Your task to perform on an android device: clear all cookies in the chrome app Image 0: 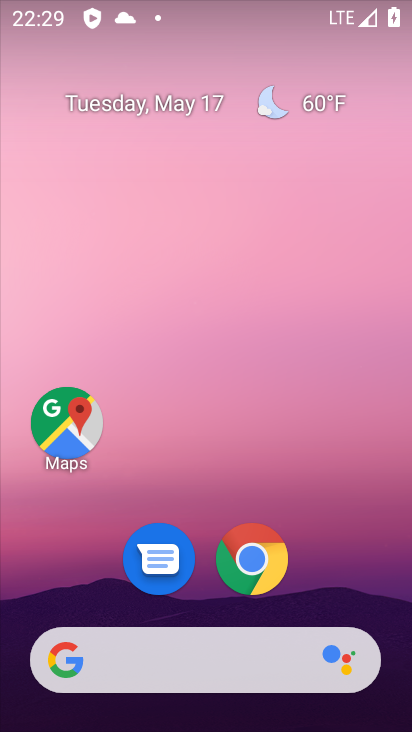
Step 0: click (248, 561)
Your task to perform on an android device: clear all cookies in the chrome app Image 1: 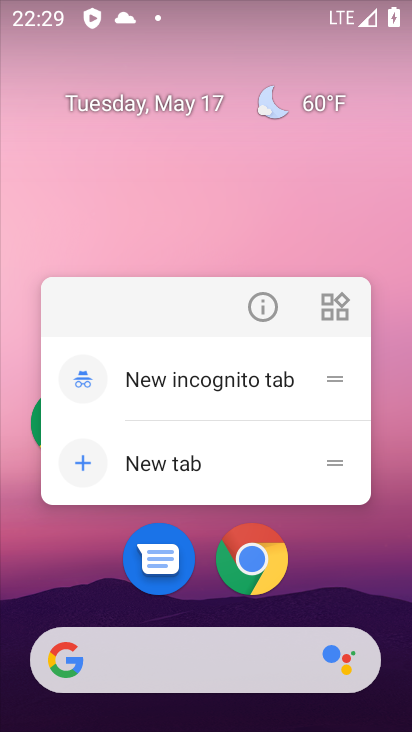
Step 1: click (252, 561)
Your task to perform on an android device: clear all cookies in the chrome app Image 2: 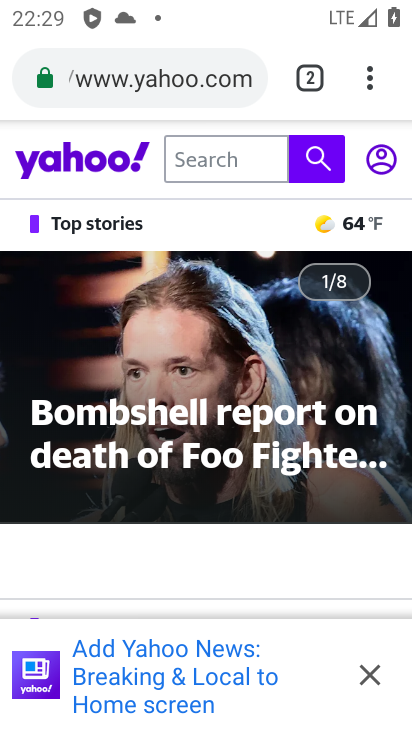
Step 2: drag from (368, 80) to (89, 126)
Your task to perform on an android device: clear all cookies in the chrome app Image 3: 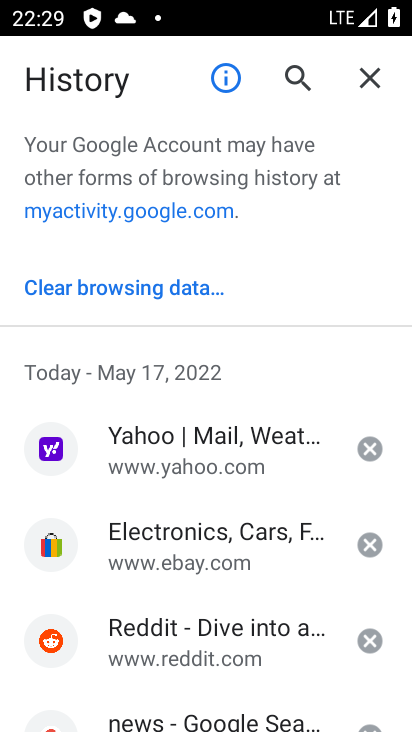
Step 3: click (175, 286)
Your task to perform on an android device: clear all cookies in the chrome app Image 4: 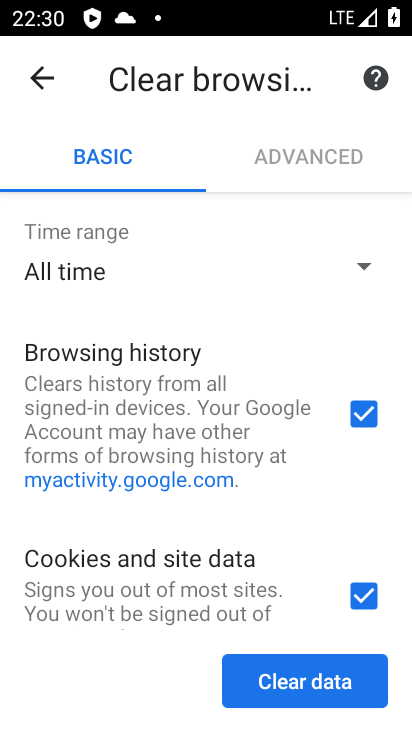
Step 4: drag from (202, 583) to (226, 160)
Your task to perform on an android device: clear all cookies in the chrome app Image 5: 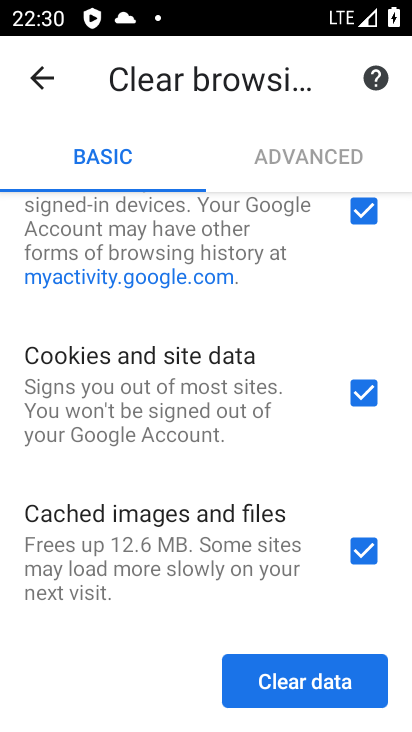
Step 5: click (315, 687)
Your task to perform on an android device: clear all cookies in the chrome app Image 6: 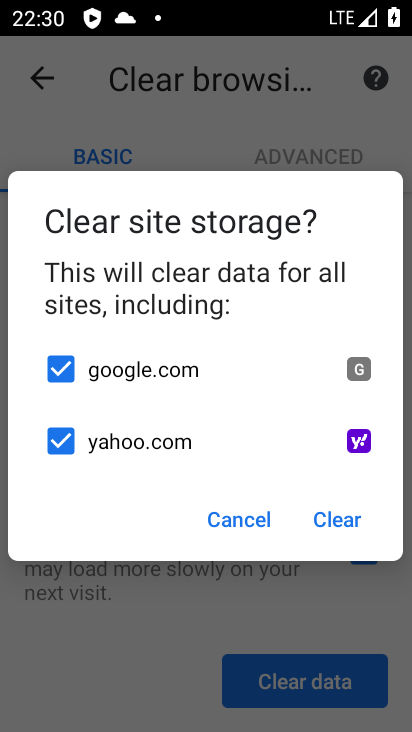
Step 6: click (344, 523)
Your task to perform on an android device: clear all cookies in the chrome app Image 7: 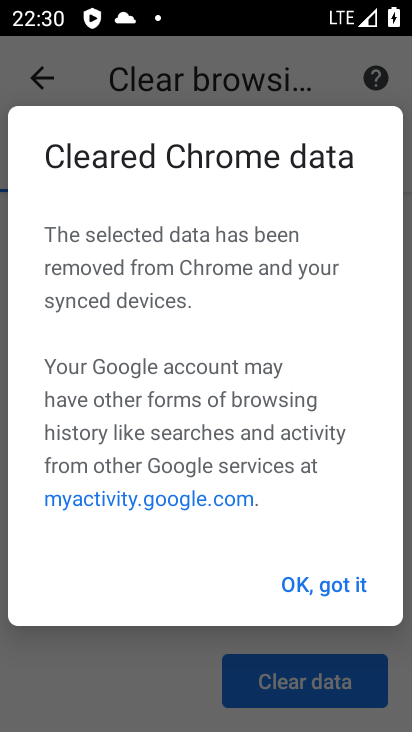
Step 7: task complete